Your task to perform on an android device: change the clock display to show seconds Image 0: 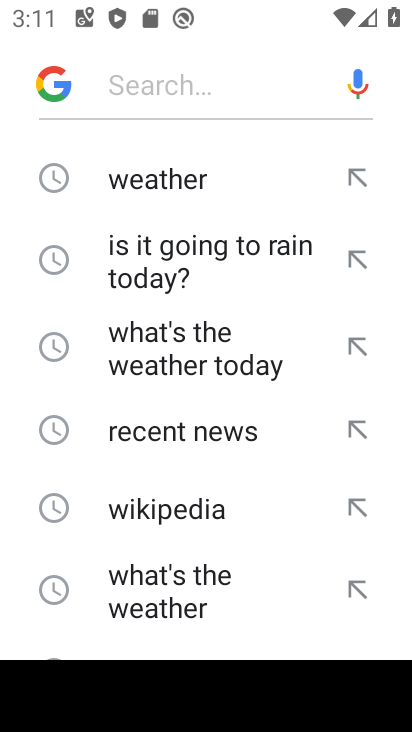
Step 0: press home button
Your task to perform on an android device: change the clock display to show seconds Image 1: 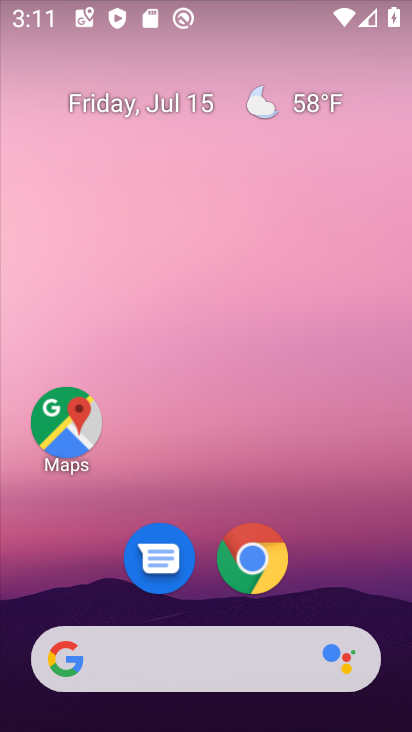
Step 1: drag from (354, 569) to (389, 55)
Your task to perform on an android device: change the clock display to show seconds Image 2: 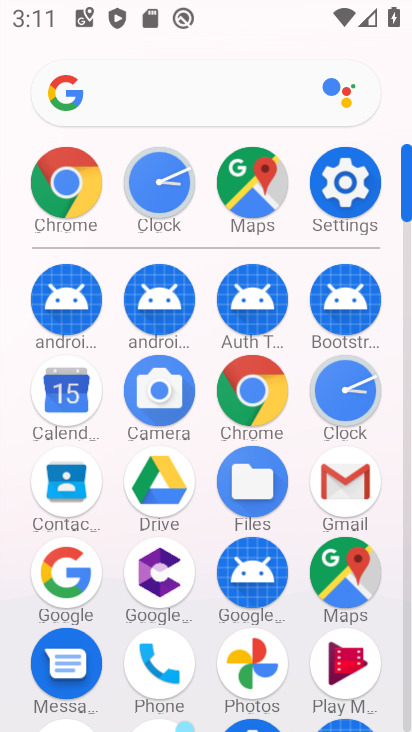
Step 2: click (345, 393)
Your task to perform on an android device: change the clock display to show seconds Image 3: 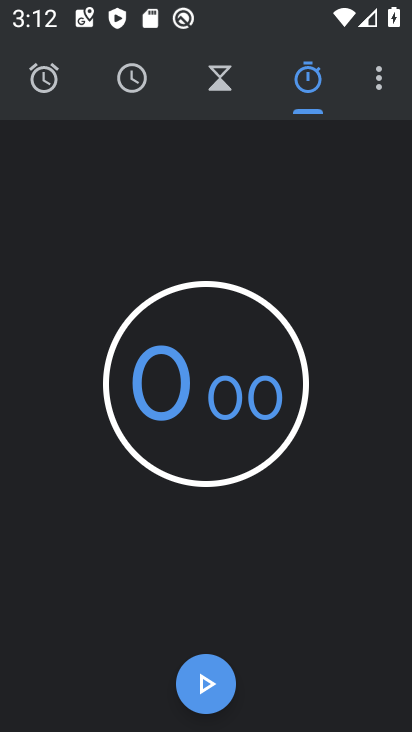
Step 3: click (380, 90)
Your task to perform on an android device: change the clock display to show seconds Image 4: 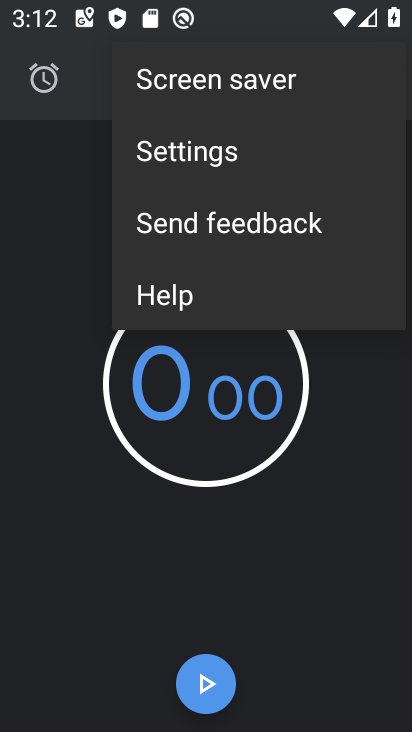
Step 4: click (306, 151)
Your task to perform on an android device: change the clock display to show seconds Image 5: 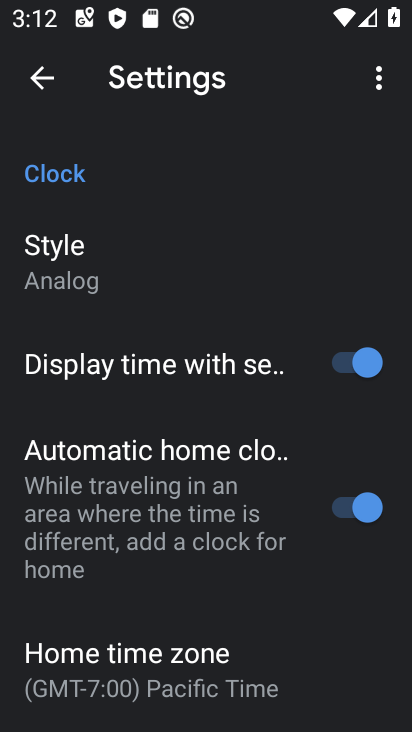
Step 5: task complete